Your task to perform on an android device: Is it going to rain this weekend? Image 0: 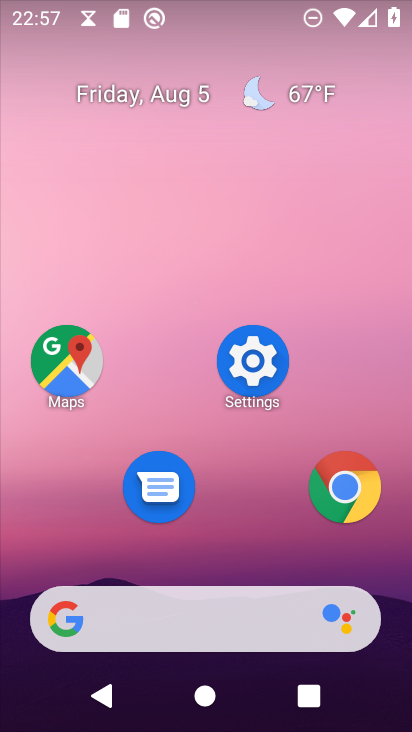
Step 0: click (112, 615)
Your task to perform on an android device: Is it going to rain this weekend? Image 1: 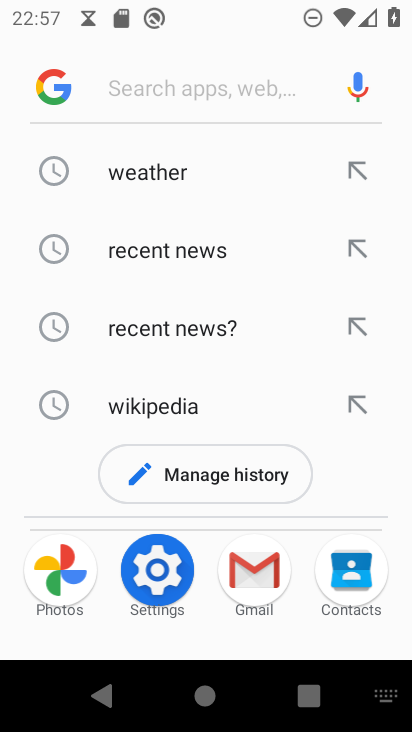
Step 1: click (166, 169)
Your task to perform on an android device: Is it going to rain this weekend? Image 2: 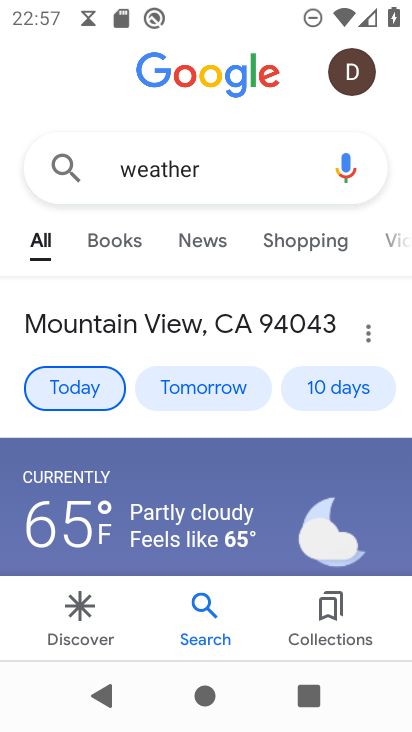
Step 2: click (355, 389)
Your task to perform on an android device: Is it going to rain this weekend? Image 3: 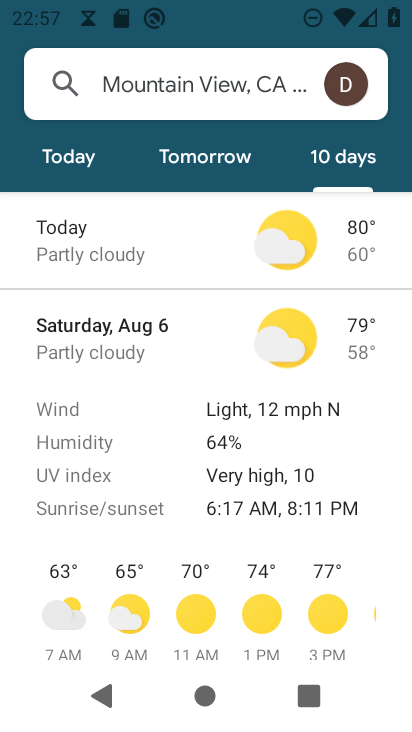
Step 3: task complete